Your task to perform on an android device: Open Android settings Image 0: 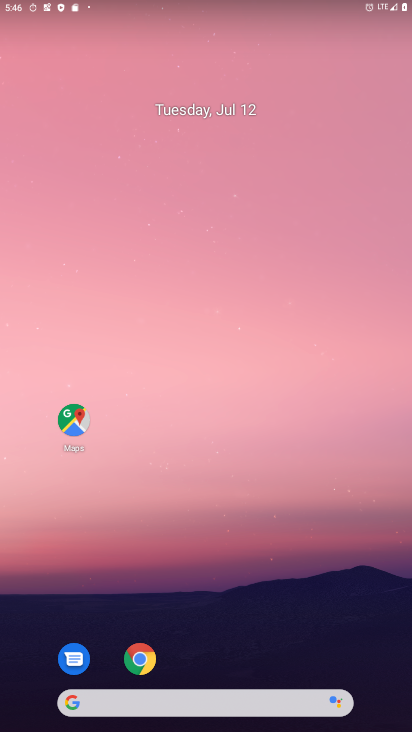
Step 0: drag from (185, 606) to (185, 123)
Your task to perform on an android device: Open Android settings Image 1: 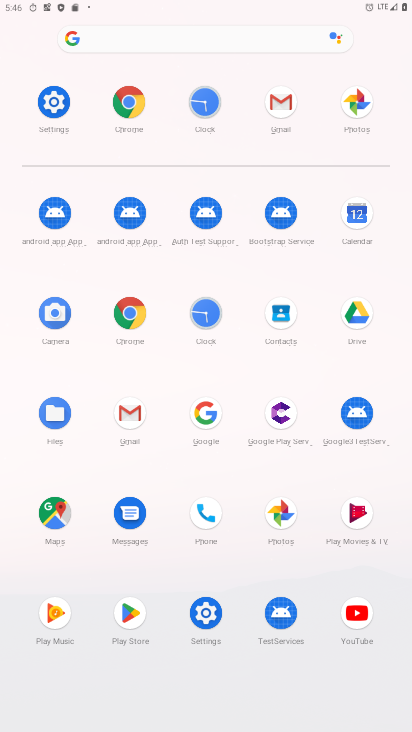
Step 1: click (51, 105)
Your task to perform on an android device: Open Android settings Image 2: 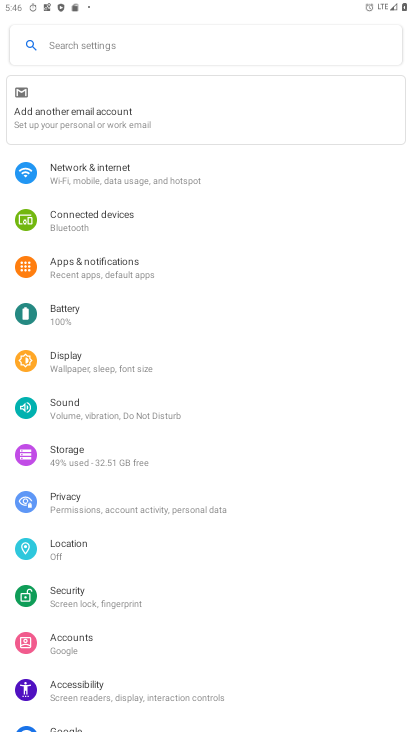
Step 2: drag from (93, 644) to (93, 206)
Your task to perform on an android device: Open Android settings Image 3: 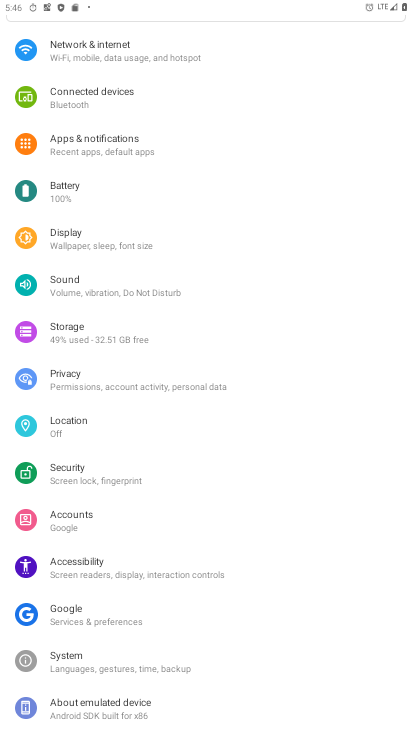
Step 3: click (81, 693)
Your task to perform on an android device: Open Android settings Image 4: 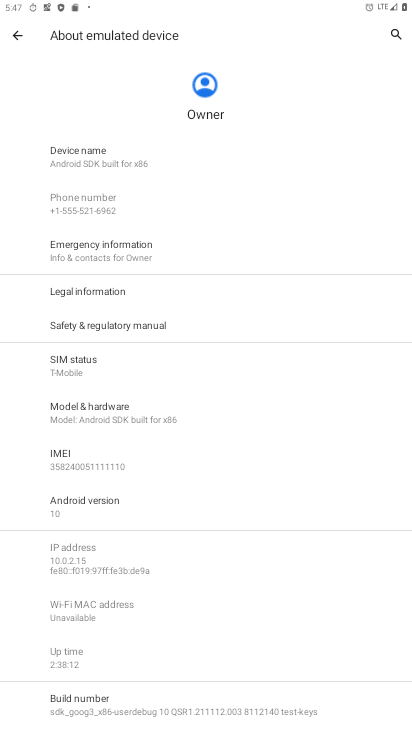
Step 4: drag from (98, 528) to (113, 320)
Your task to perform on an android device: Open Android settings Image 5: 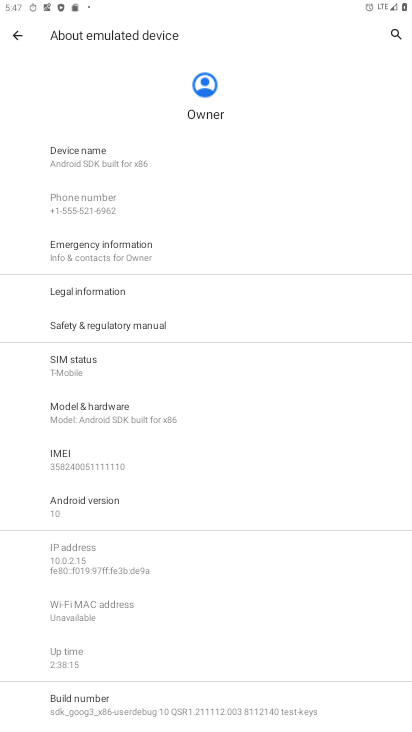
Step 5: click (105, 506)
Your task to perform on an android device: Open Android settings Image 6: 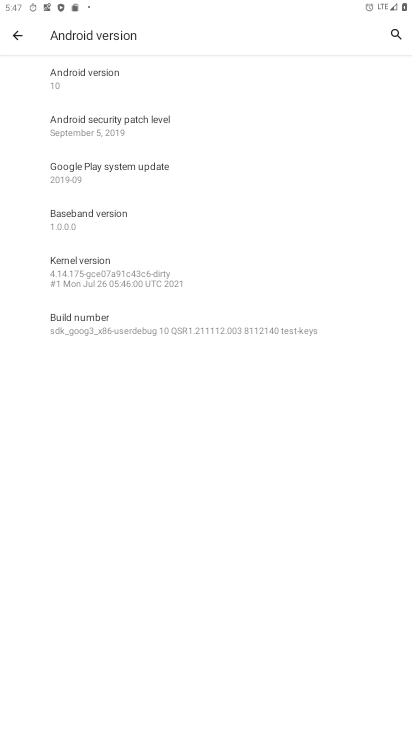
Step 6: task complete